Your task to perform on an android device: Show me the alarms in the clock app Image 0: 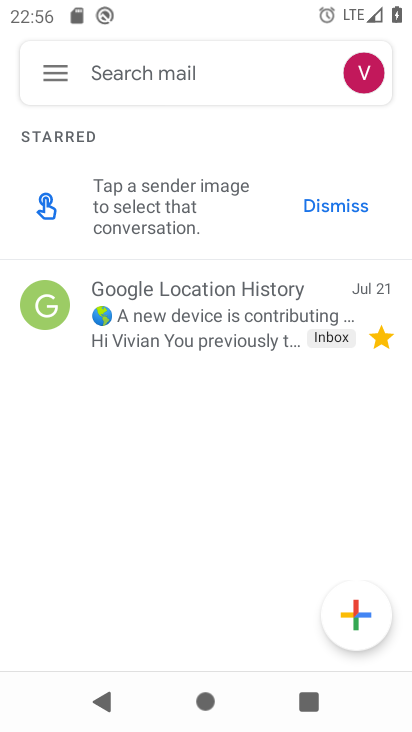
Step 0: press home button
Your task to perform on an android device: Show me the alarms in the clock app Image 1: 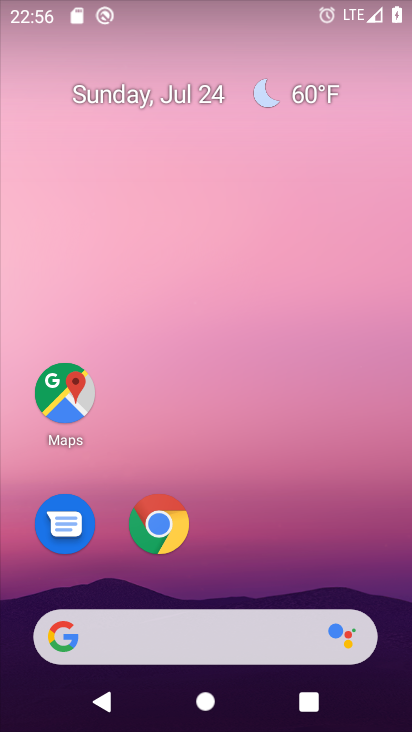
Step 1: drag from (270, 570) to (287, 76)
Your task to perform on an android device: Show me the alarms in the clock app Image 2: 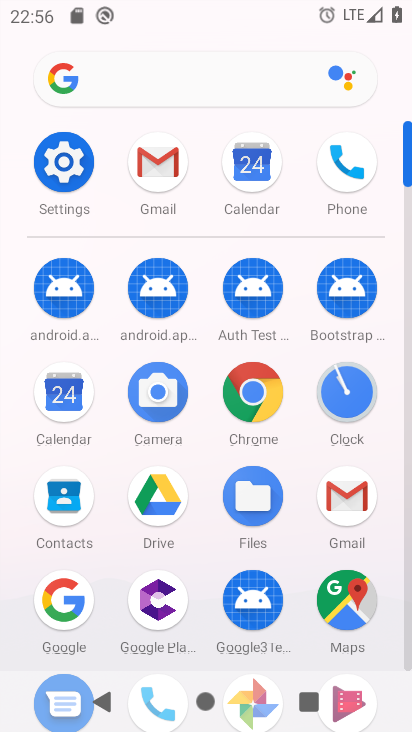
Step 2: click (349, 400)
Your task to perform on an android device: Show me the alarms in the clock app Image 3: 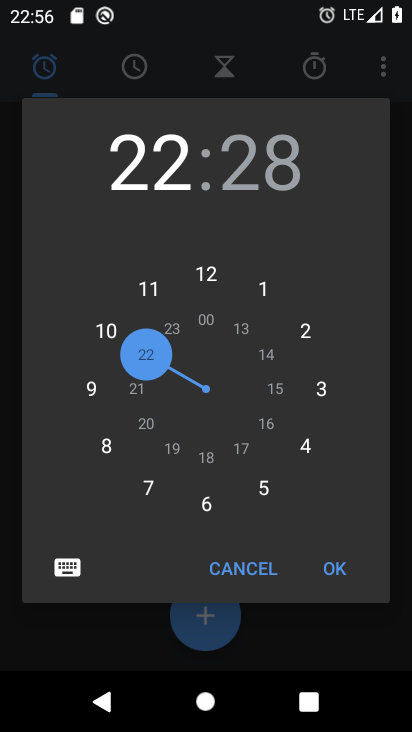
Step 3: click (264, 566)
Your task to perform on an android device: Show me the alarms in the clock app Image 4: 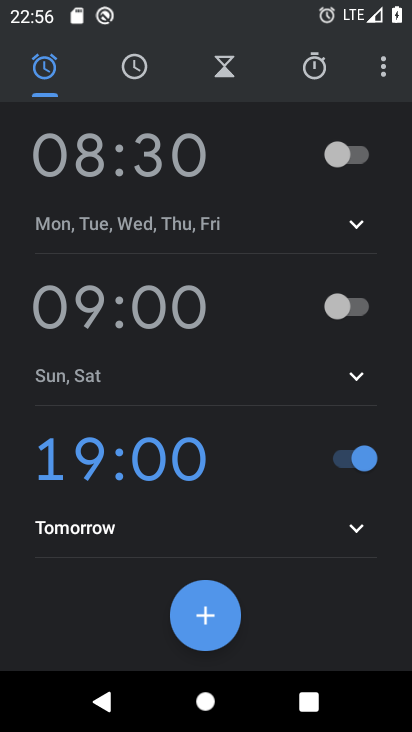
Step 4: task complete